Your task to perform on an android device: Open settings Image 0: 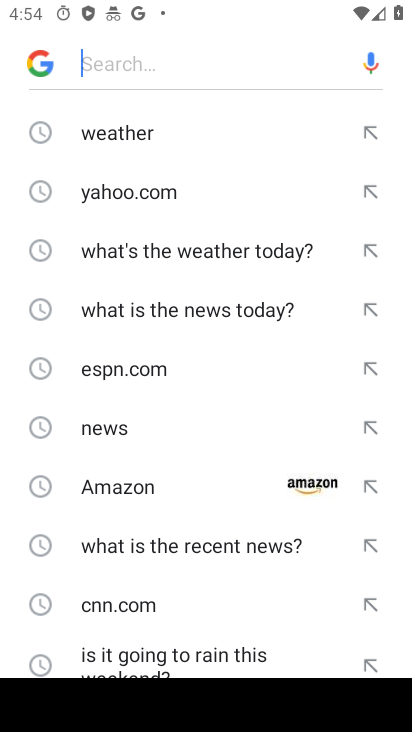
Step 0: press home button
Your task to perform on an android device: Open settings Image 1: 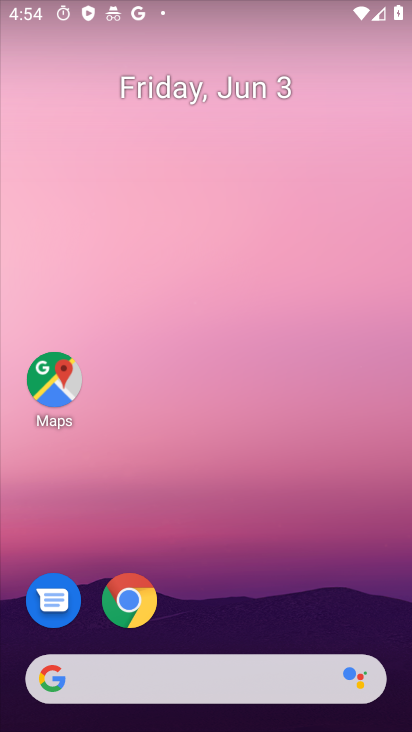
Step 1: drag from (361, 403) to (339, 80)
Your task to perform on an android device: Open settings Image 2: 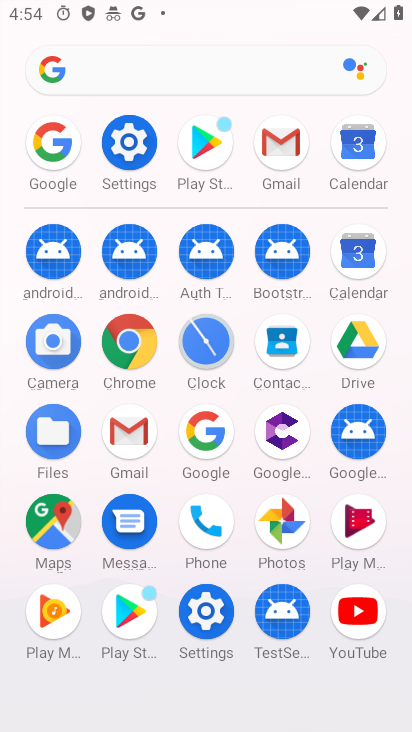
Step 2: click (113, 160)
Your task to perform on an android device: Open settings Image 3: 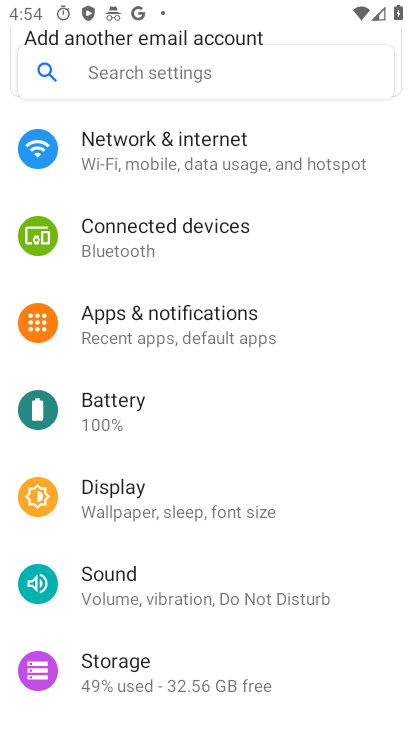
Step 3: task complete